Your task to perform on an android device: change the clock display to digital Image 0: 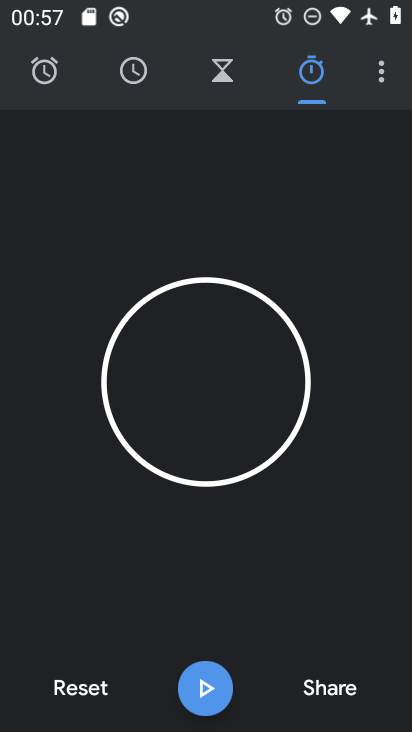
Step 0: click (383, 67)
Your task to perform on an android device: change the clock display to digital Image 1: 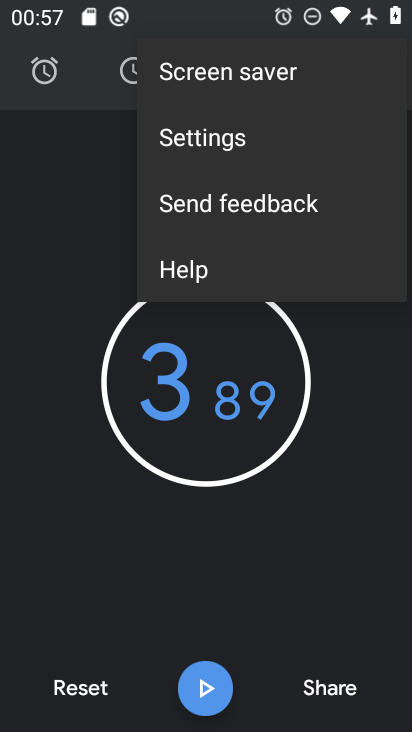
Step 1: click (209, 144)
Your task to perform on an android device: change the clock display to digital Image 2: 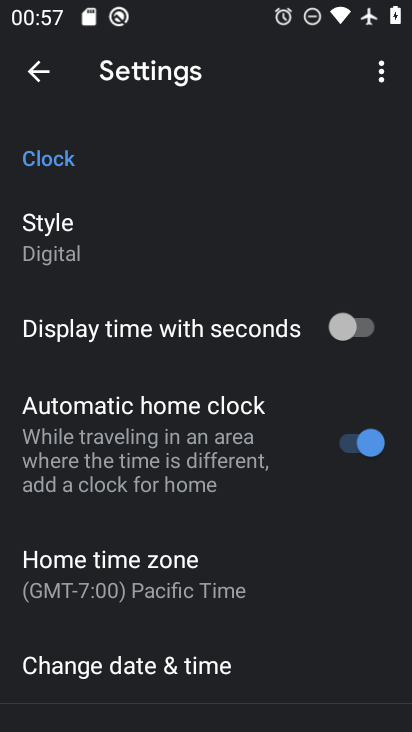
Step 2: click (25, 230)
Your task to perform on an android device: change the clock display to digital Image 3: 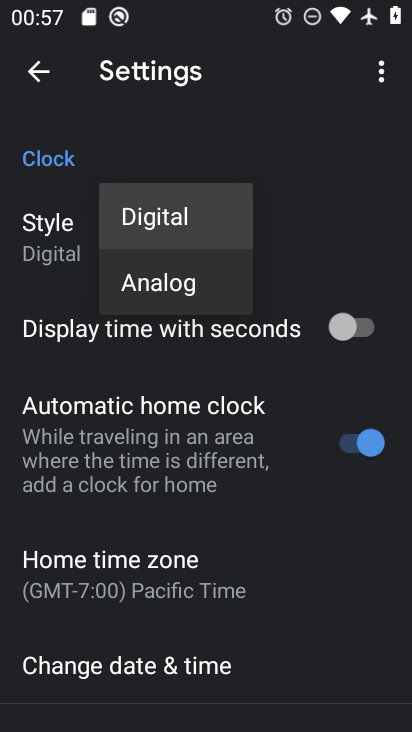
Step 3: task complete